Your task to perform on an android device: Open Google Image 0: 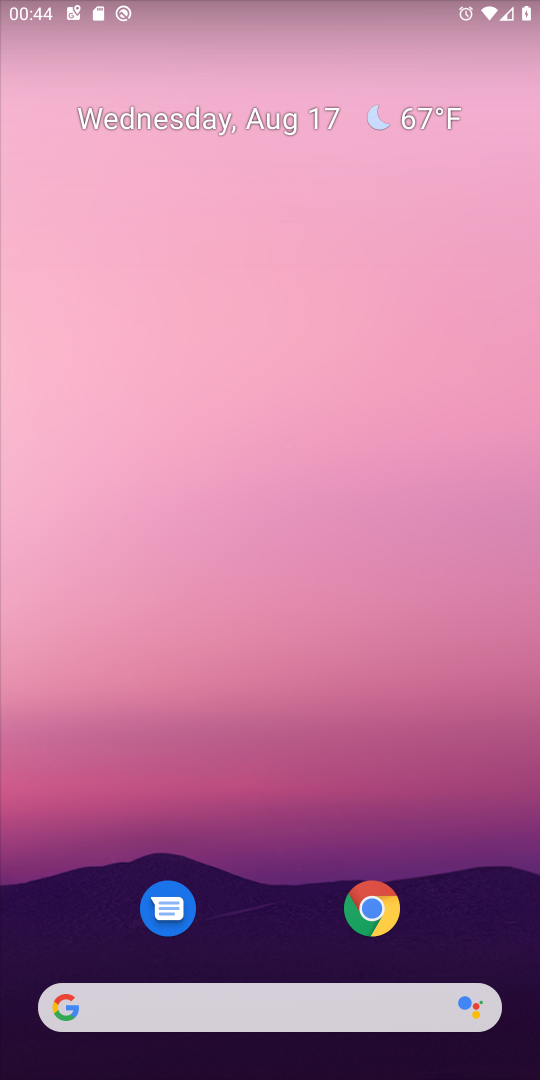
Step 0: drag from (314, 856) to (289, 425)
Your task to perform on an android device: Open Google Image 1: 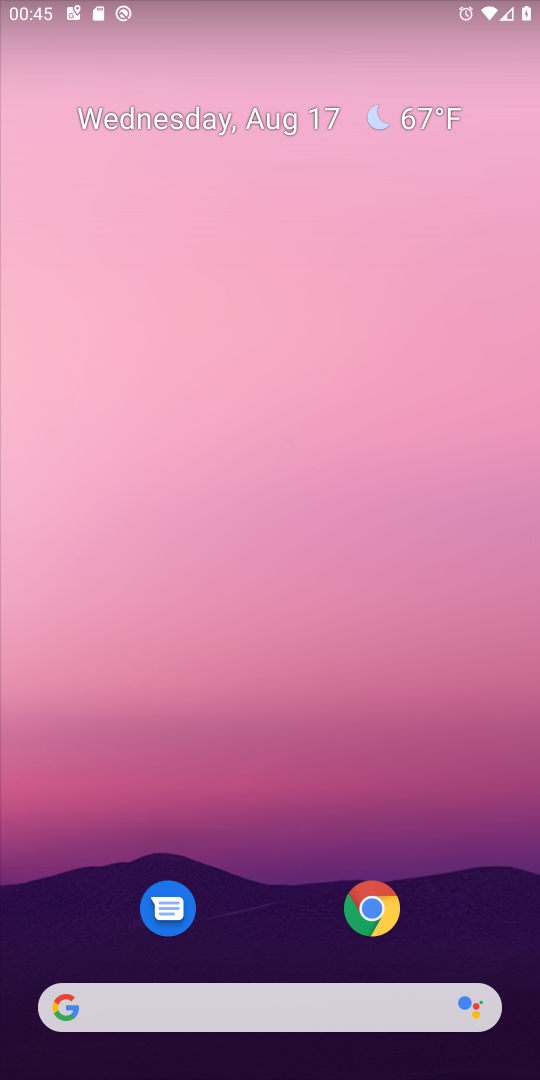
Step 1: drag from (276, 885) to (272, 260)
Your task to perform on an android device: Open Google Image 2: 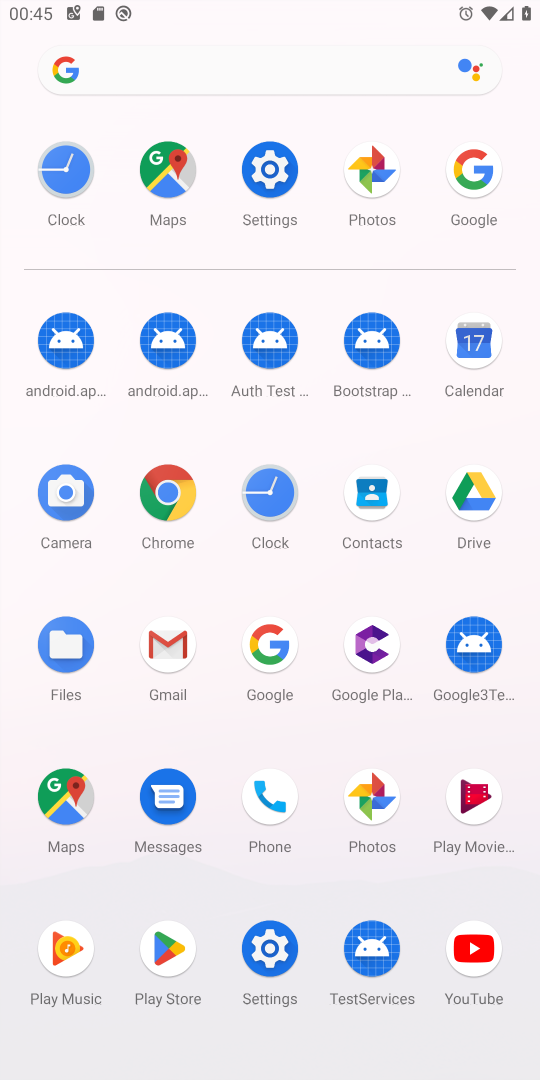
Step 2: click (269, 650)
Your task to perform on an android device: Open Google Image 3: 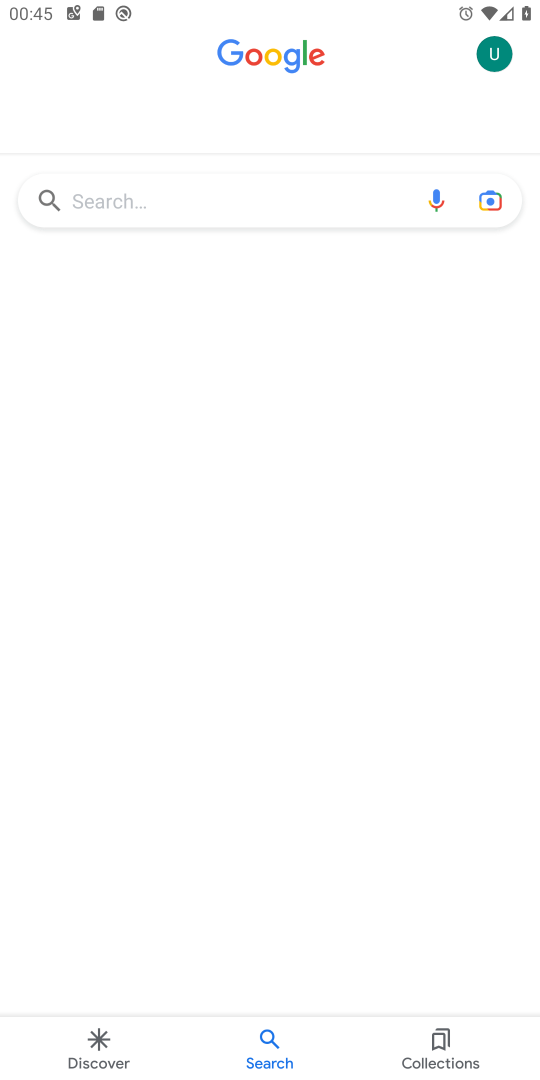
Step 3: task complete